Your task to perform on an android device: turn on bluetooth scan Image 0: 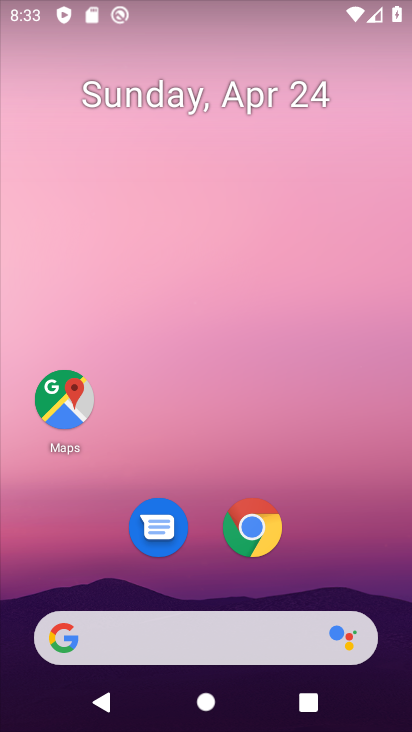
Step 0: drag from (373, 460) to (400, 0)
Your task to perform on an android device: turn on bluetooth scan Image 1: 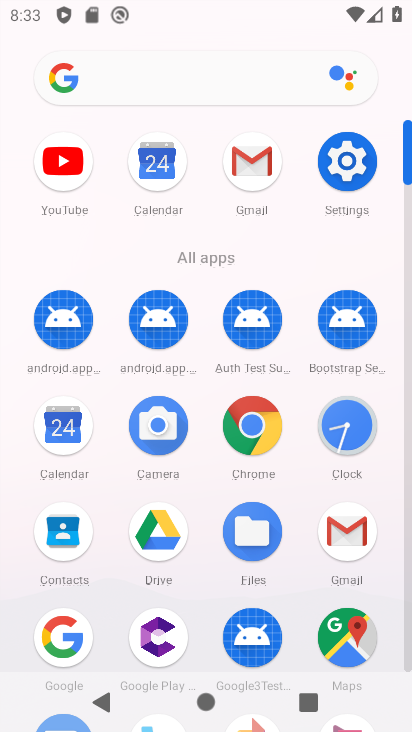
Step 1: click (346, 162)
Your task to perform on an android device: turn on bluetooth scan Image 2: 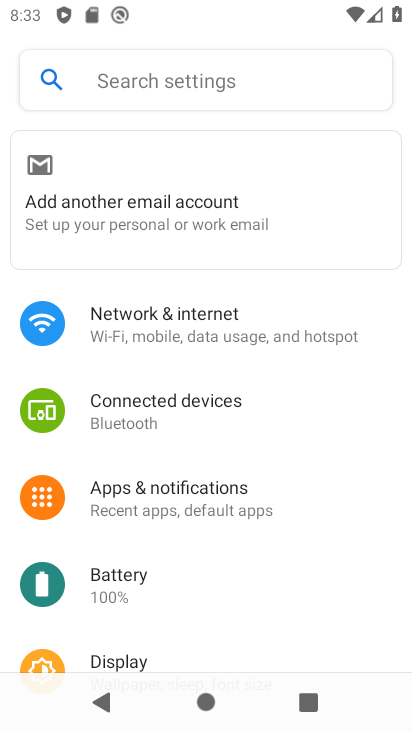
Step 2: drag from (322, 494) to (325, 154)
Your task to perform on an android device: turn on bluetooth scan Image 3: 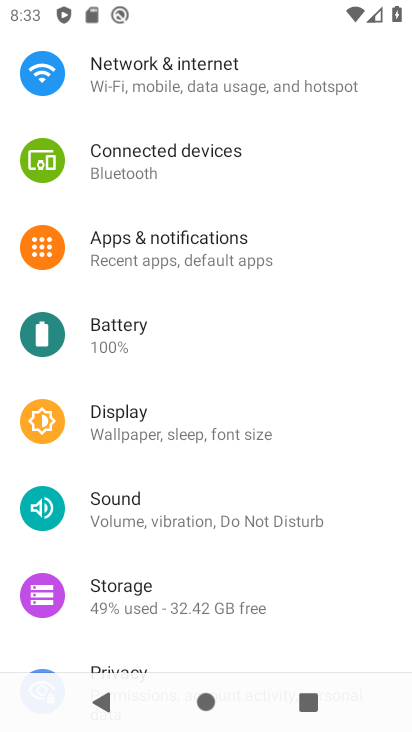
Step 3: drag from (290, 547) to (283, 168)
Your task to perform on an android device: turn on bluetooth scan Image 4: 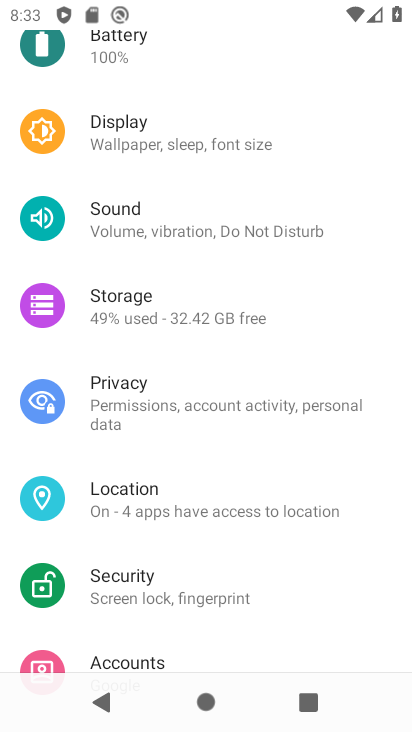
Step 4: click (108, 499)
Your task to perform on an android device: turn on bluetooth scan Image 5: 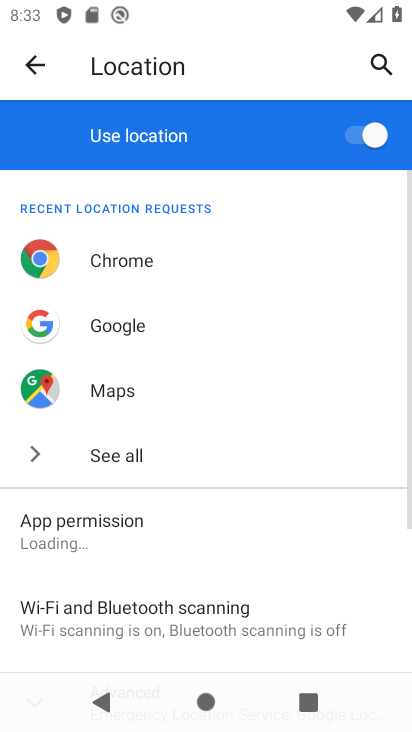
Step 5: drag from (241, 527) to (259, 245)
Your task to perform on an android device: turn on bluetooth scan Image 6: 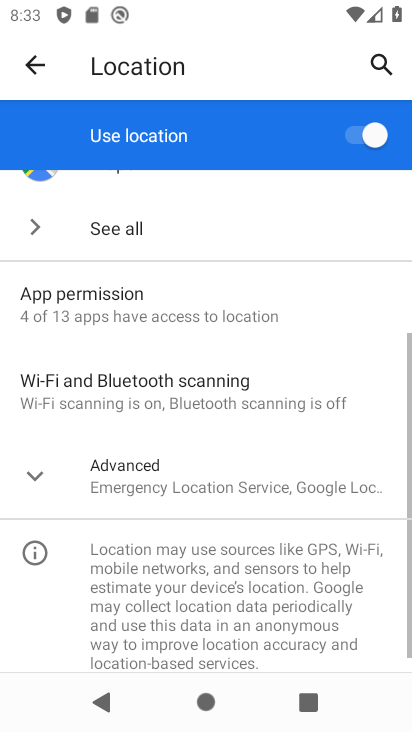
Step 6: click (128, 391)
Your task to perform on an android device: turn on bluetooth scan Image 7: 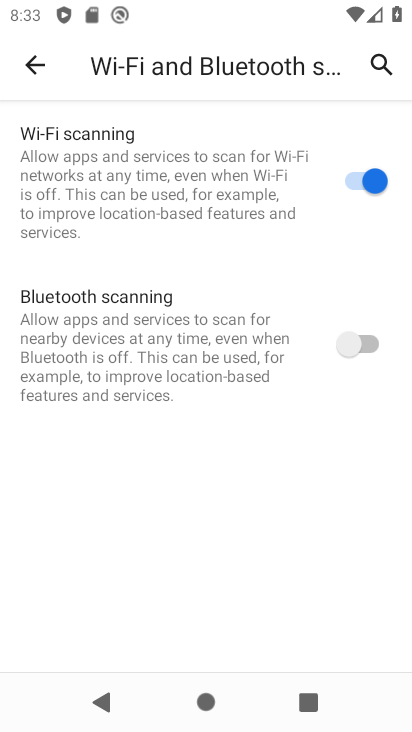
Step 7: click (348, 349)
Your task to perform on an android device: turn on bluetooth scan Image 8: 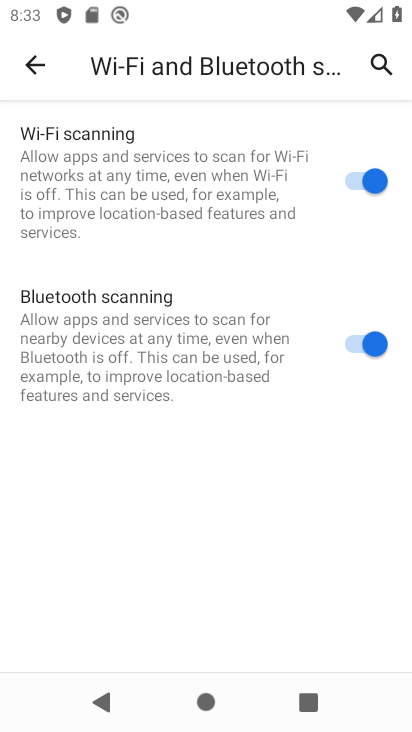
Step 8: task complete